Your task to perform on an android device: create a new album in the google photos Image 0: 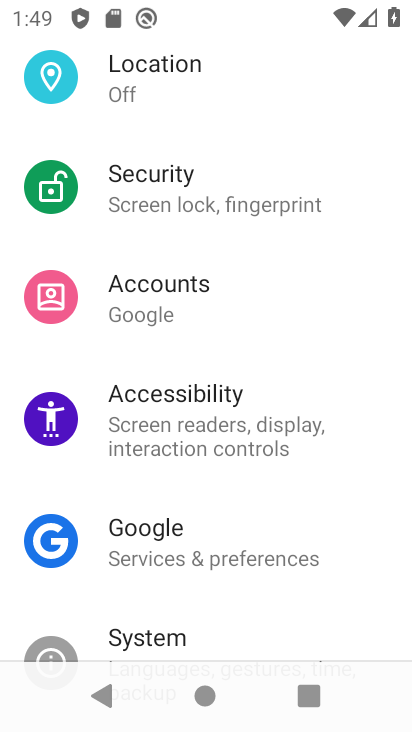
Step 0: press home button
Your task to perform on an android device: create a new album in the google photos Image 1: 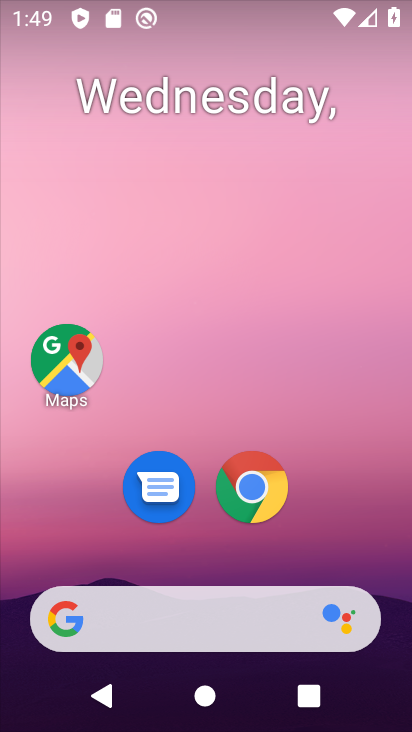
Step 1: drag from (350, 520) to (235, 177)
Your task to perform on an android device: create a new album in the google photos Image 2: 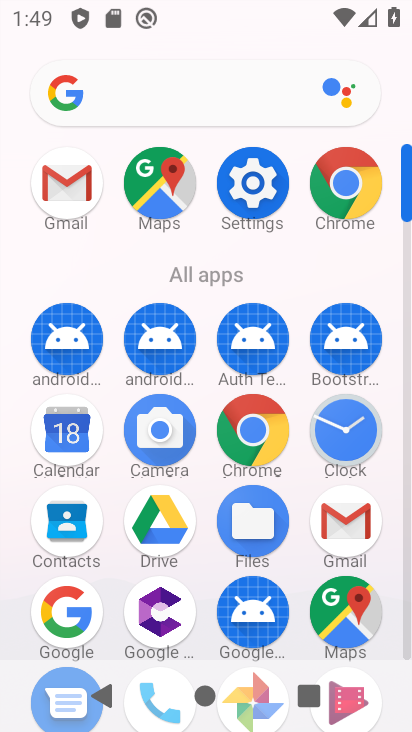
Step 2: drag from (204, 613) to (168, 384)
Your task to perform on an android device: create a new album in the google photos Image 3: 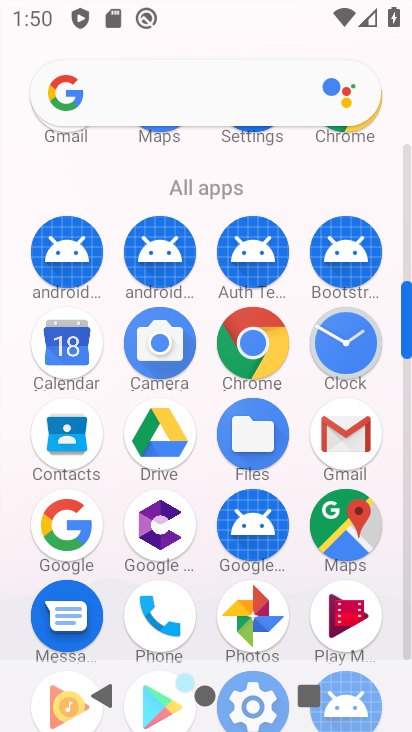
Step 3: click (255, 619)
Your task to perform on an android device: create a new album in the google photos Image 4: 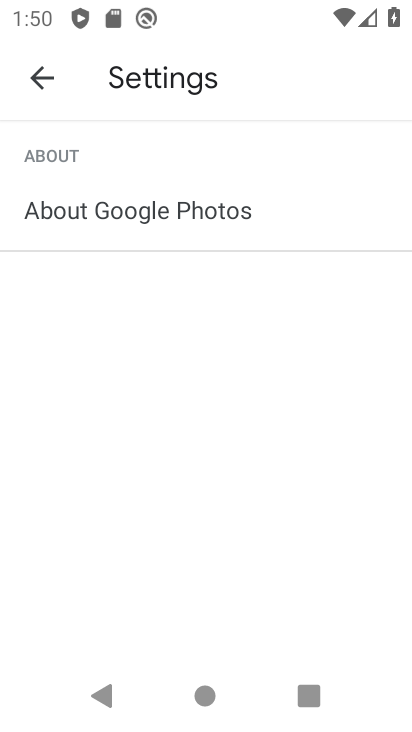
Step 4: click (34, 75)
Your task to perform on an android device: create a new album in the google photos Image 5: 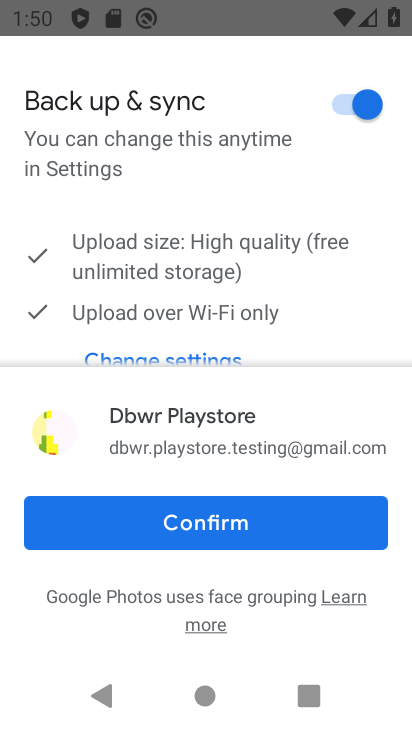
Step 5: click (152, 523)
Your task to perform on an android device: create a new album in the google photos Image 6: 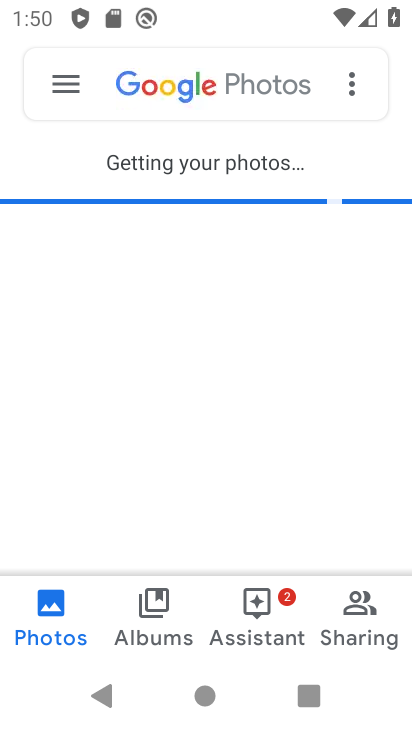
Step 6: click (151, 600)
Your task to perform on an android device: create a new album in the google photos Image 7: 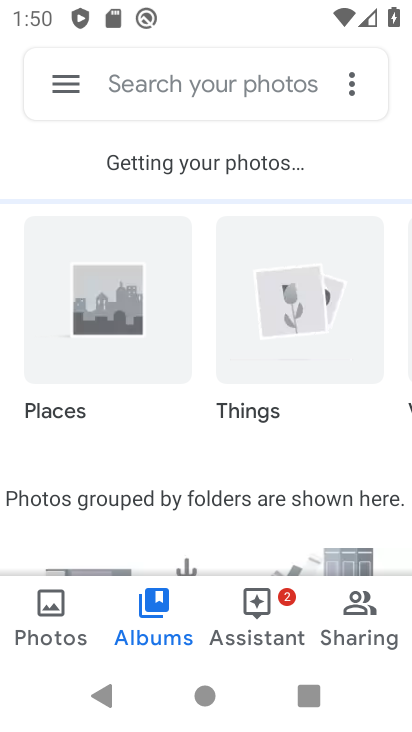
Step 7: drag from (145, 410) to (98, 202)
Your task to perform on an android device: create a new album in the google photos Image 8: 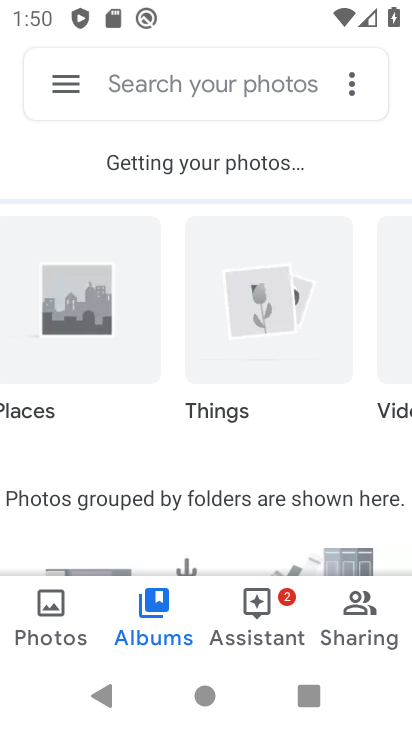
Step 8: drag from (157, 477) to (157, 260)
Your task to perform on an android device: create a new album in the google photos Image 9: 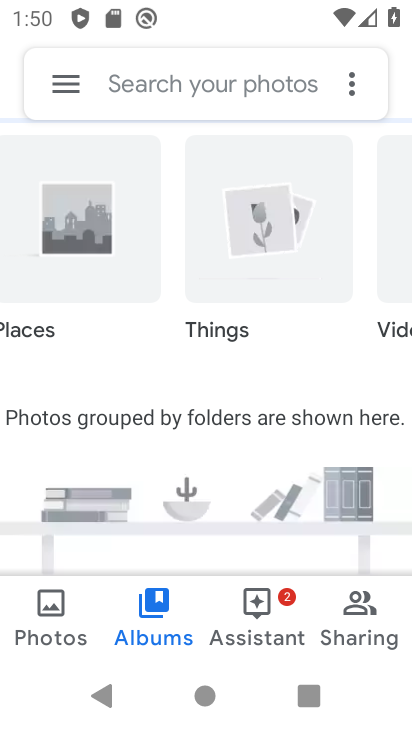
Step 9: drag from (212, 456) to (169, 219)
Your task to perform on an android device: create a new album in the google photos Image 10: 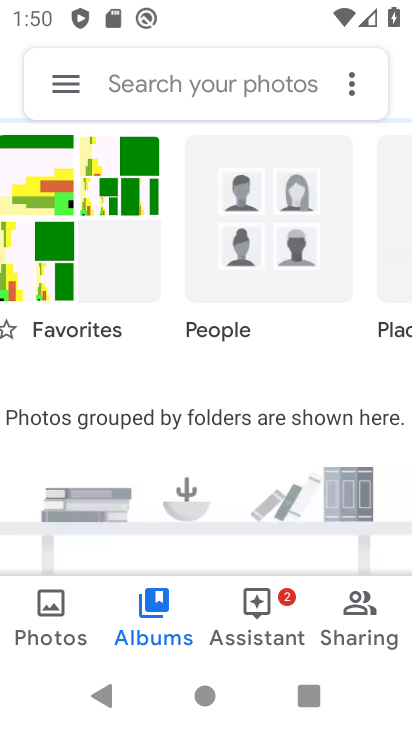
Step 10: click (349, 83)
Your task to perform on an android device: create a new album in the google photos Image 11: 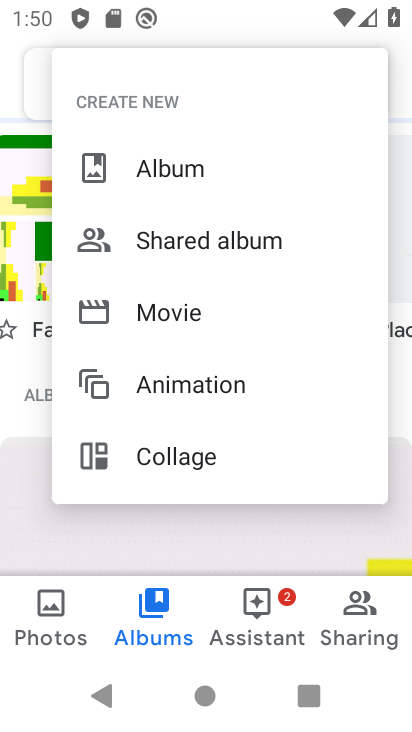
Step 11: click (168, 158)
Your task to perform on an android device: create a new album in the google photos Image 12: 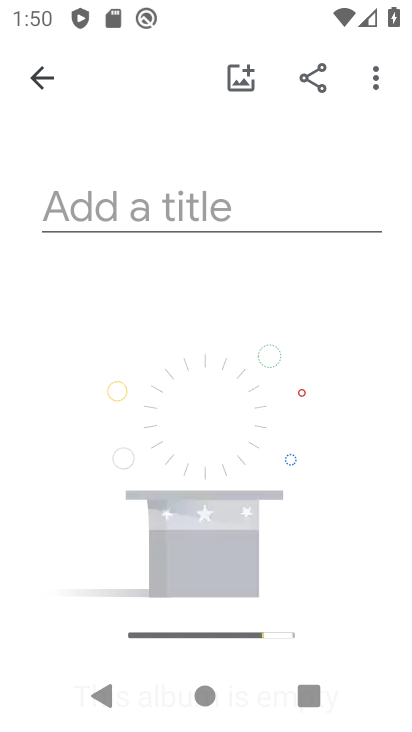
Step 12: click (151, 194)
Your task to perform on an android device: create a new album in the google photos Image 13: 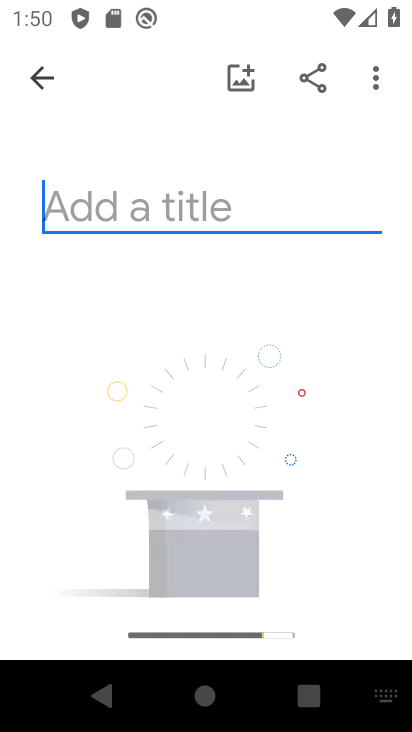
Step 13: type "jayufv"
Your task to perform on an android device: create a new album in the google photos Image 14: 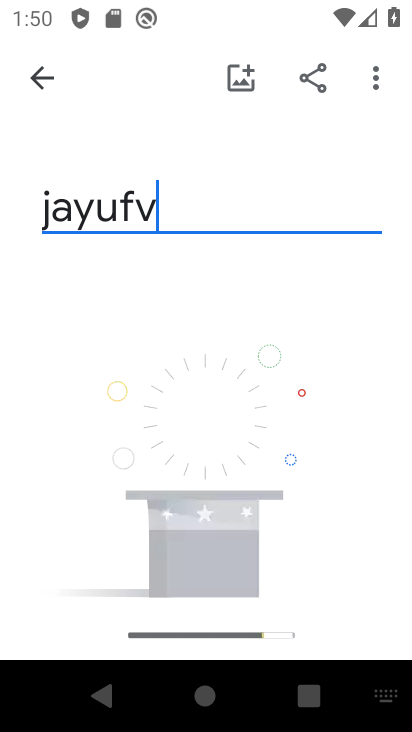
Step 14: drag from (266, 383) to (244, 105)
Your task to perform on an android device: create a new album in the google photos Image 15: 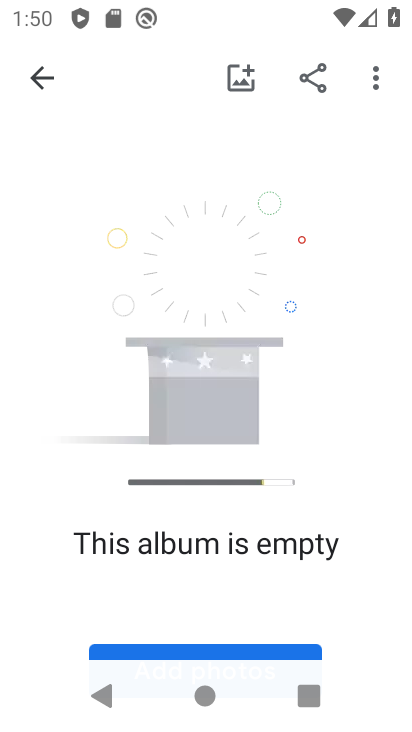
Step 15: drag from (303, 374) to (266, 164)
Your task to perform on an android device: create a new album in the google photos Image 16: 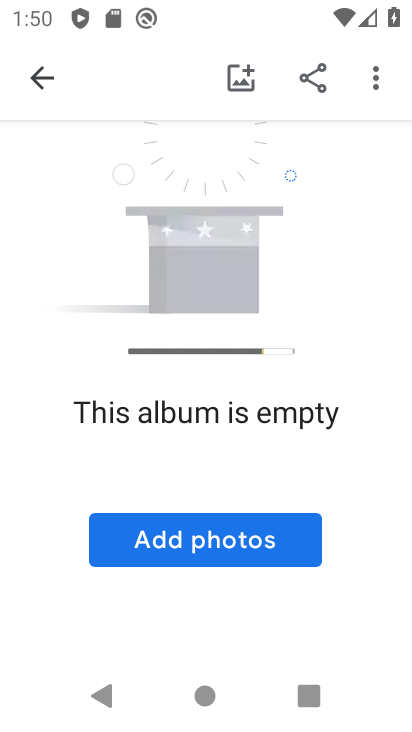
Step 16: click (219, 541)
Your task to perform on an android device: create a new album in the google photos Image 17: 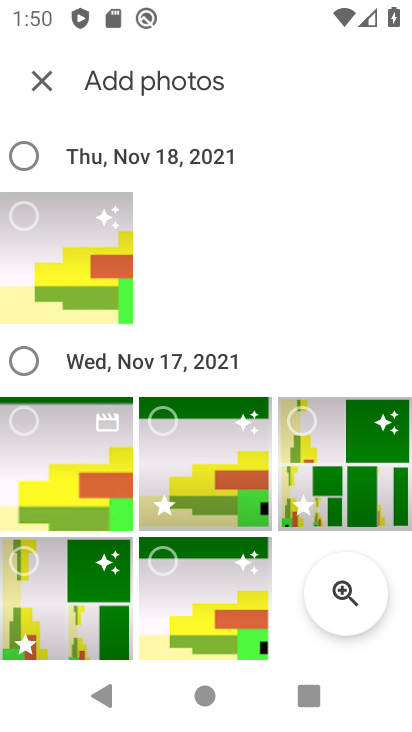
Step 17: click (39, 207)
Your task to perform on an android device: create a new album in the google photos Image 18: 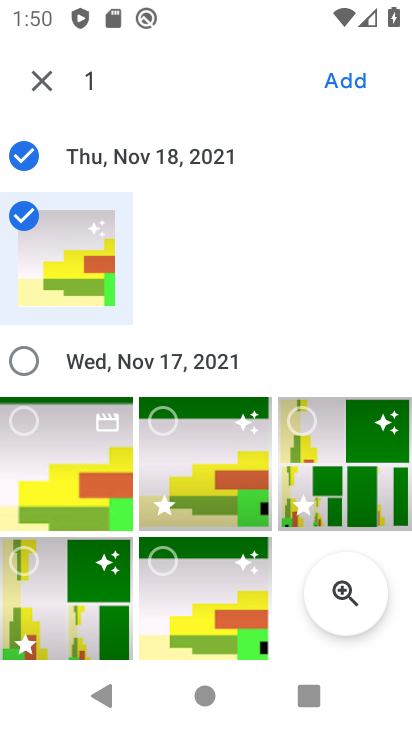
Step 18: click (339, 79)
Your task to perform on an android device: create a new album in the google photos Image 19: 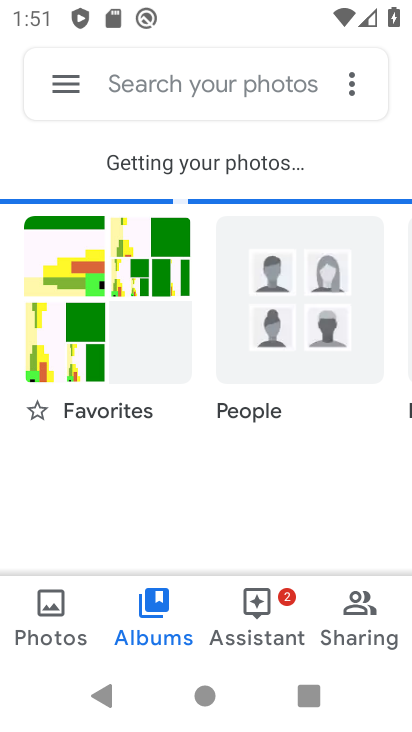
Step 19: task complete